Your task to perform on an android device: Open Google Image 0: 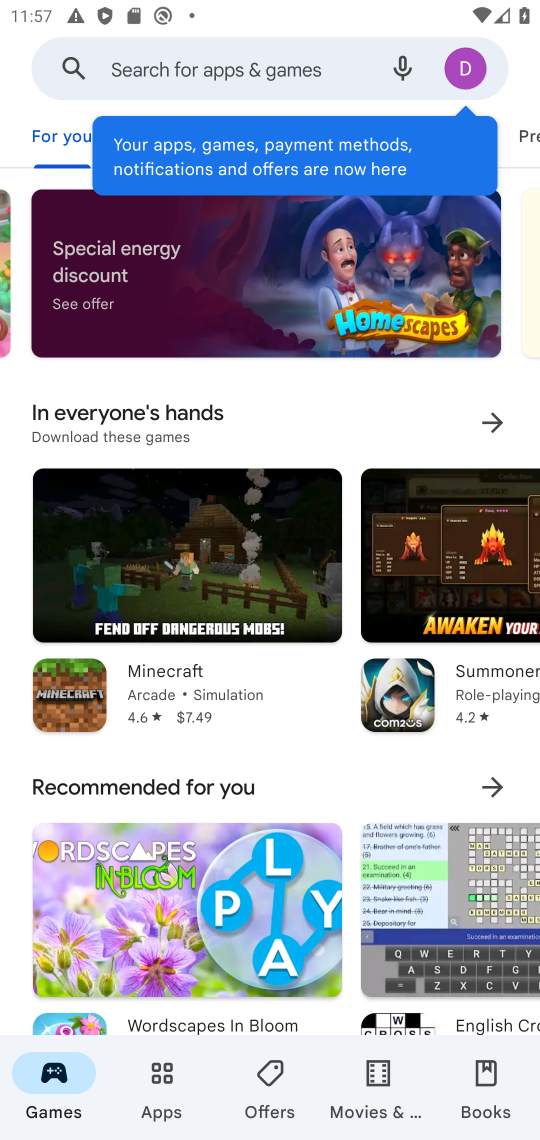
Step 0: press home button
Your task to perform on an android device: Open Google Image 1: 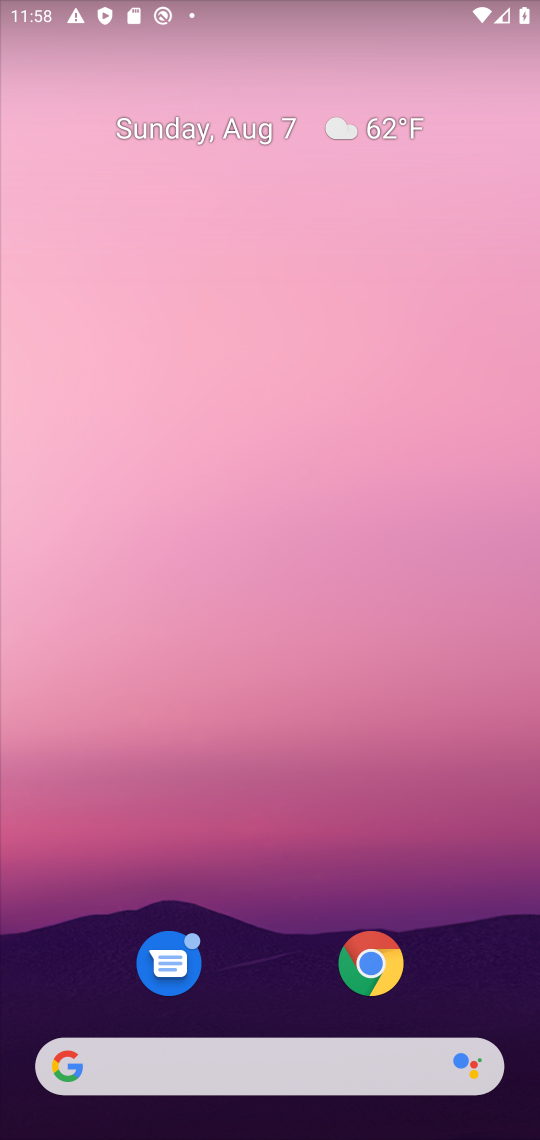
Step 1: drag from (323, 988) to (103, 56)
Your task to perform on an android device: Open Google Image 2: 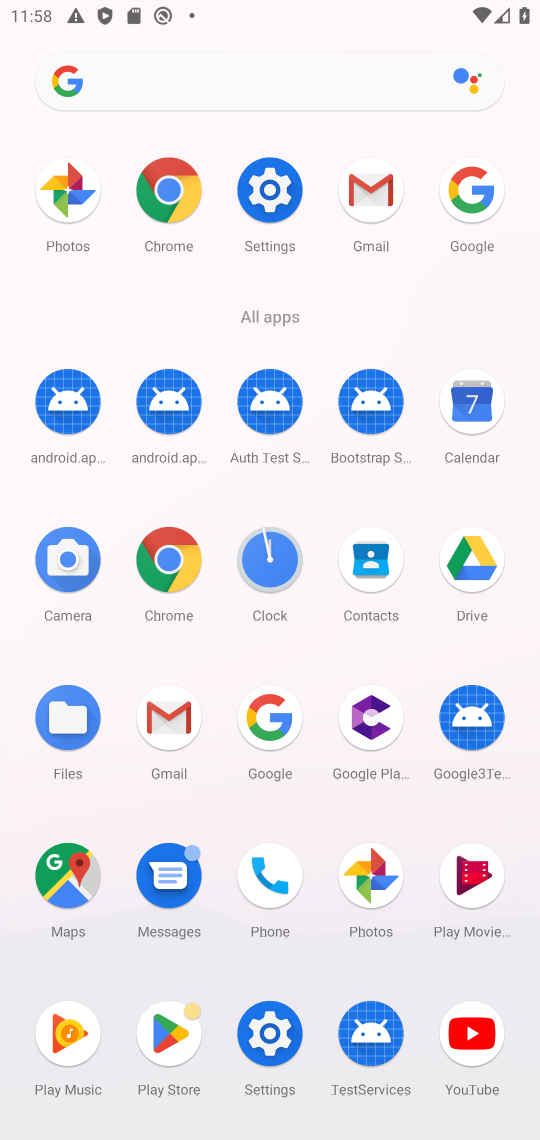
Step 2: click (299, 720)
Your task to perform on an android device: Open Google Image 3: 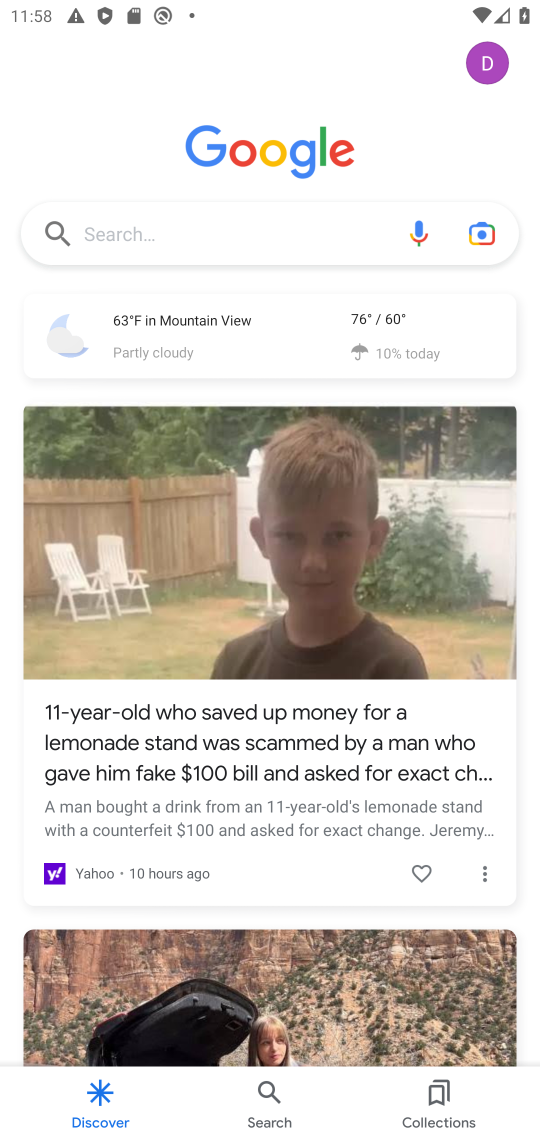
Step 3: task complete